Your task to perform on an android device: Go to calendar. Show me events next week Image 0: 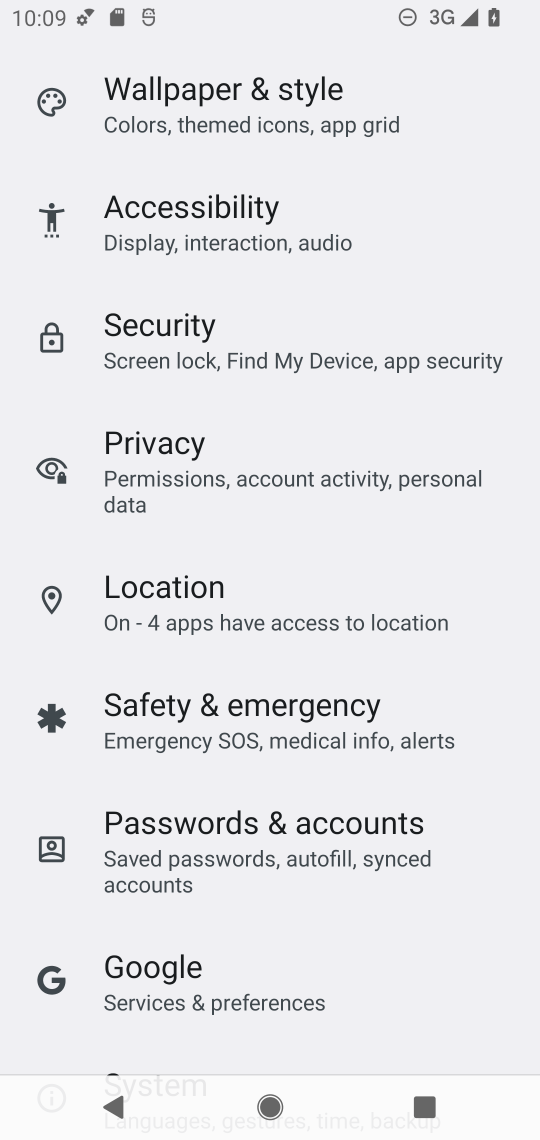
Step 0: press home button
Your task to perform on an android device: Go to calendar. Show me events next week Image 1: 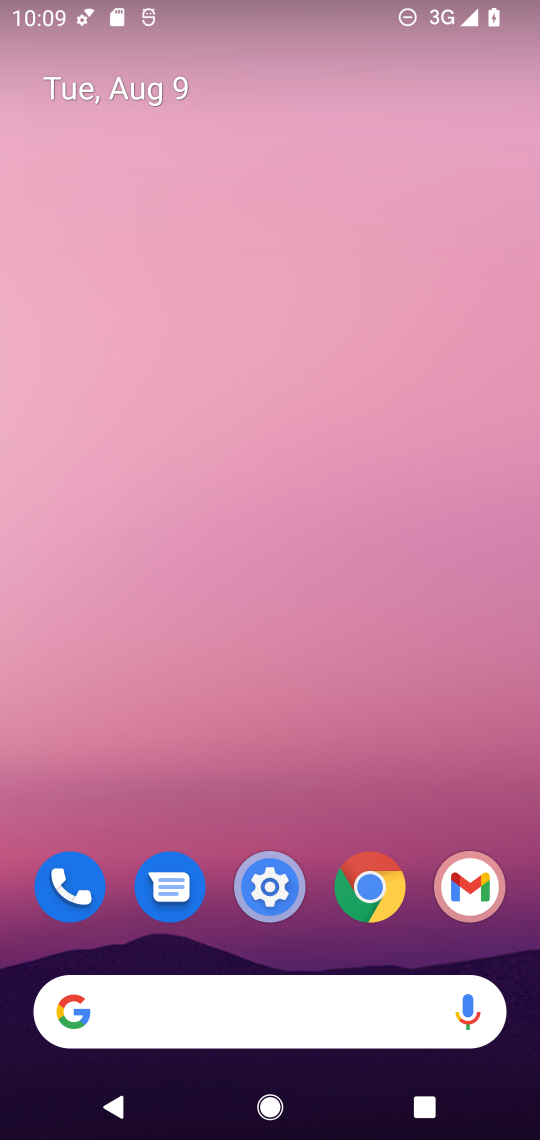
Step 1: drag from (227, 781) to (204, 61)
Your task to perform on an android device: Go to calendar. Show me events next week Image 2: 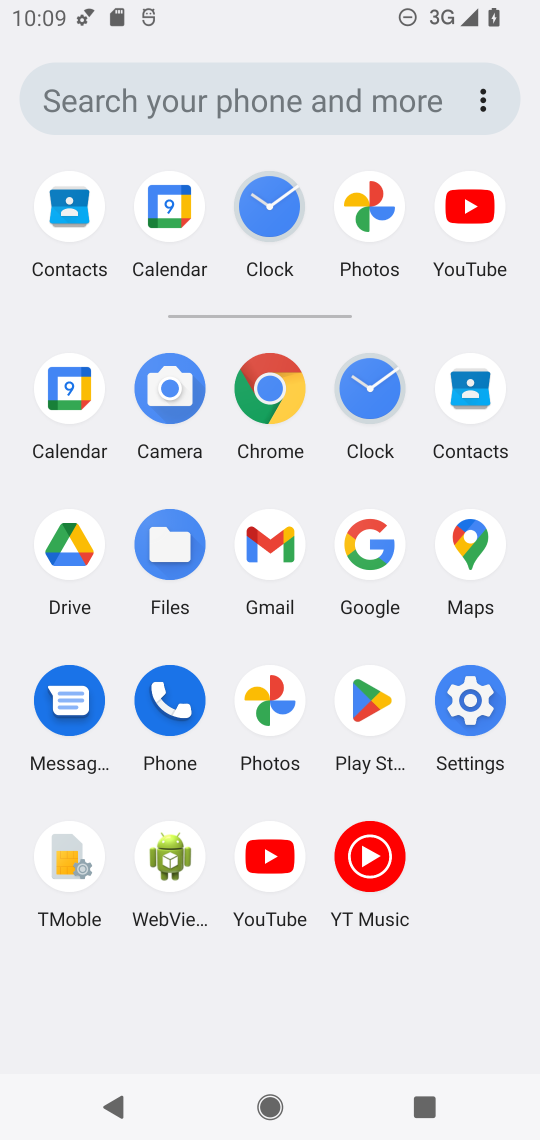
Step 2: click (77, 387)
Your task to perform on an android device: Go to calendar. Show me events next week Image 3: 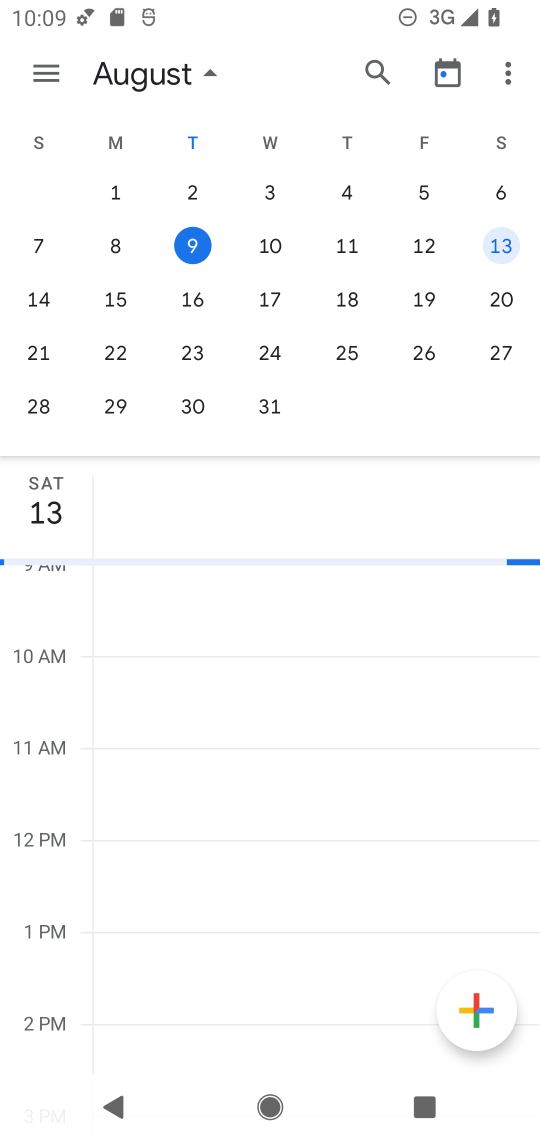
Step 3: click (50, 292)
Your task to perform on an android device: Go to calendar. Show me events next week Image 4: 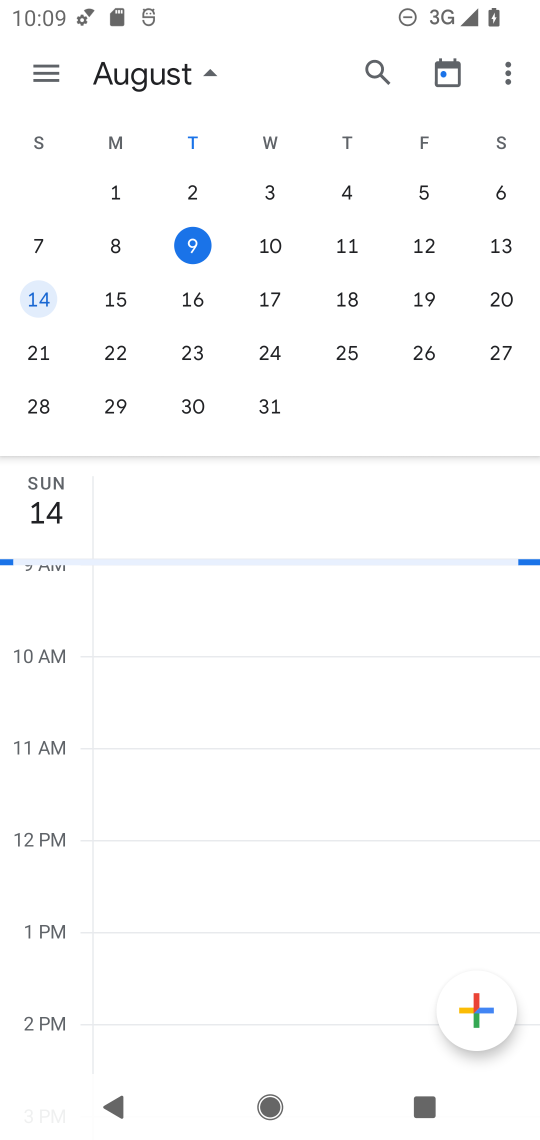
Step 4: click (116, 282)
Your task to perform on an android device: Go to calendar. Show me events next week Image 5: 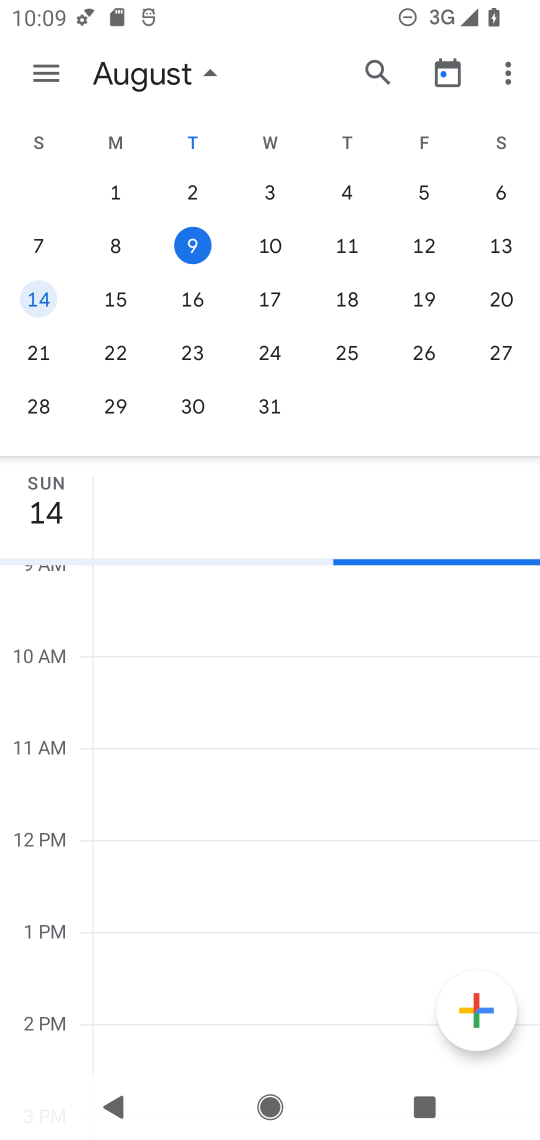
Step 5: click (146, 298)
Your task to perform on an android device: Go to calendar. Show me events next week Image 6: 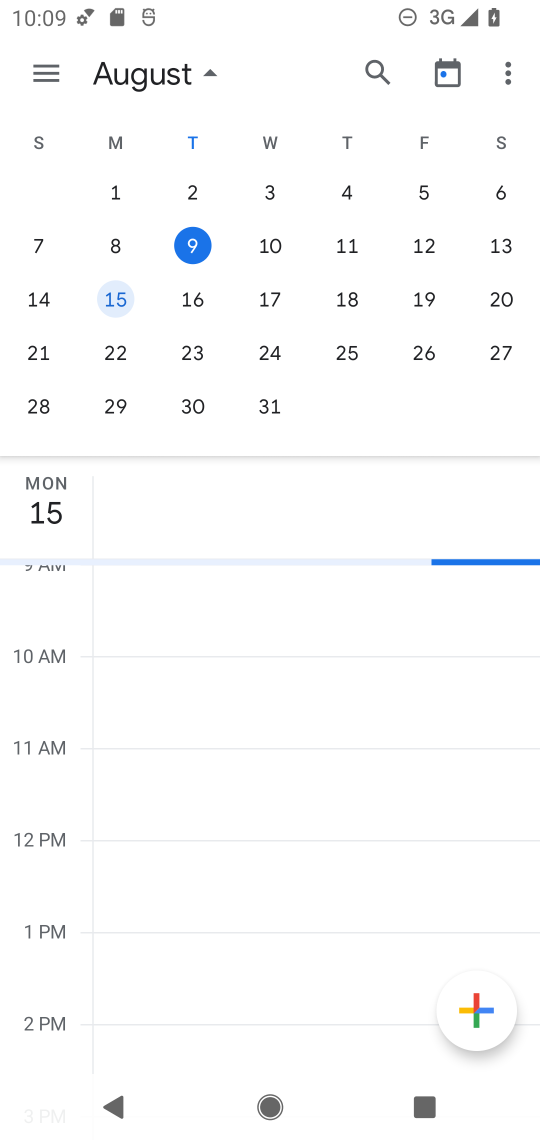
Step 6: task complete